Your task to perform on an android device: Go to location settings Image 0: 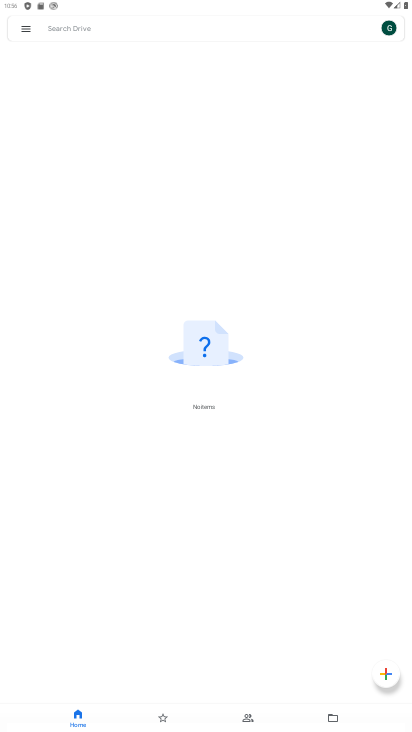
Step 0: press home button
Your task to perform on an android device: Go to location settings Image 1: 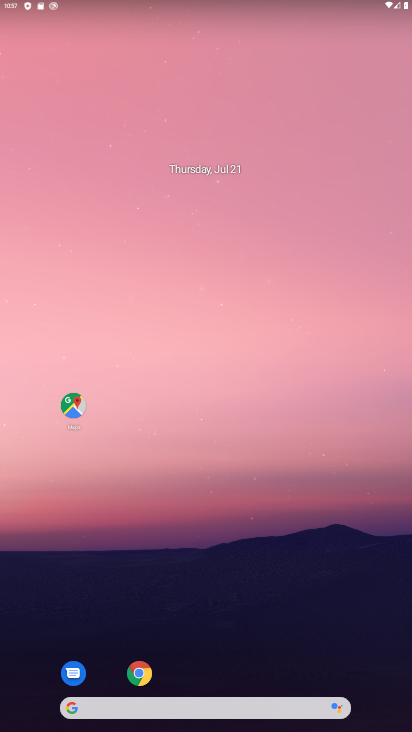
Step 1: drag from (269, 666) to (222, 92)
Your task to perform on an android device: Go to location settings Image 2: 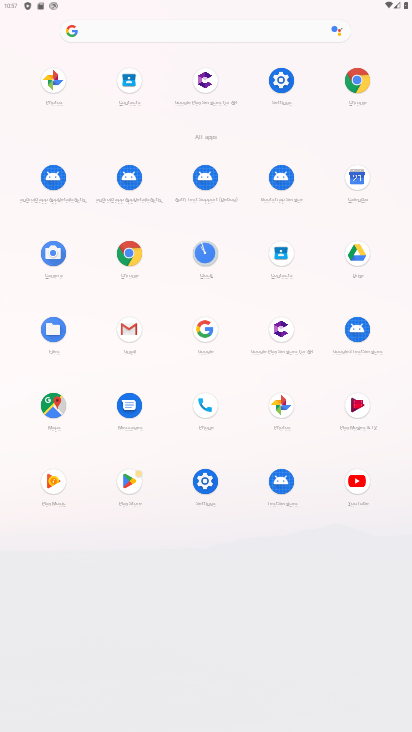
Step 2: click (287, 90)
Your task to perform on an android device: Go to location settings Image 3: 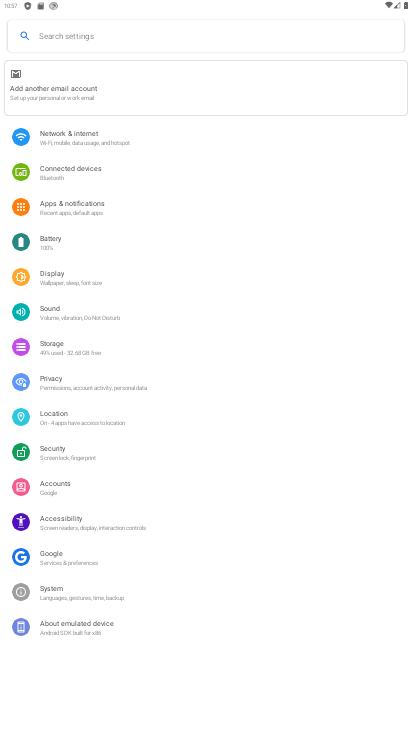
Step 3: click (116, 422)
Your task to perform on an android device: Go to location settings Image 4: 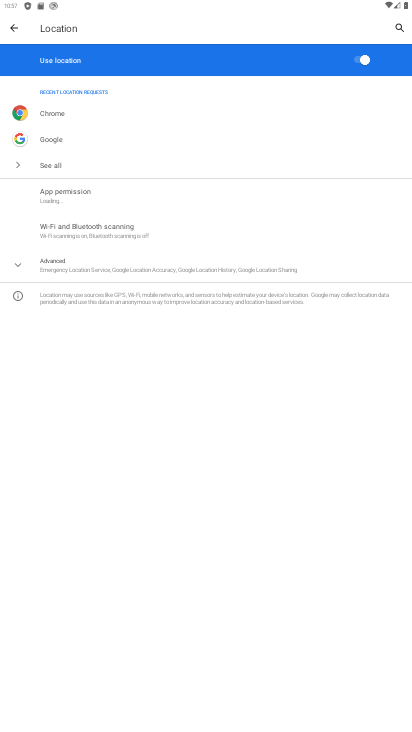
Step 4: task complete